Your task to perform on an android device: change notifications settings Image 0: 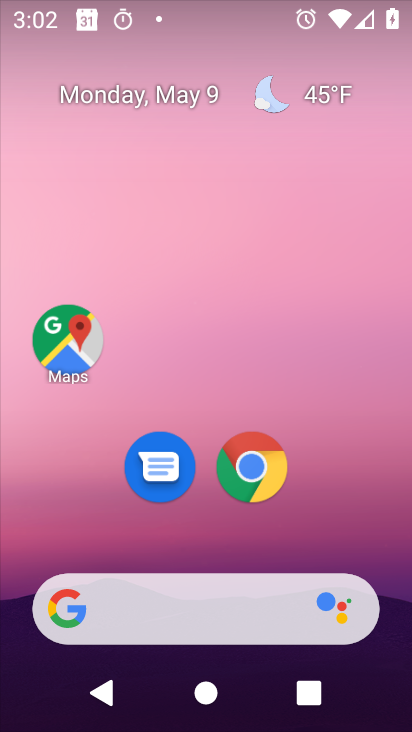
Step 0: drag from (364, 515) to (317, 103)
Your task to perform on an android device: change notifications settings Image 1: 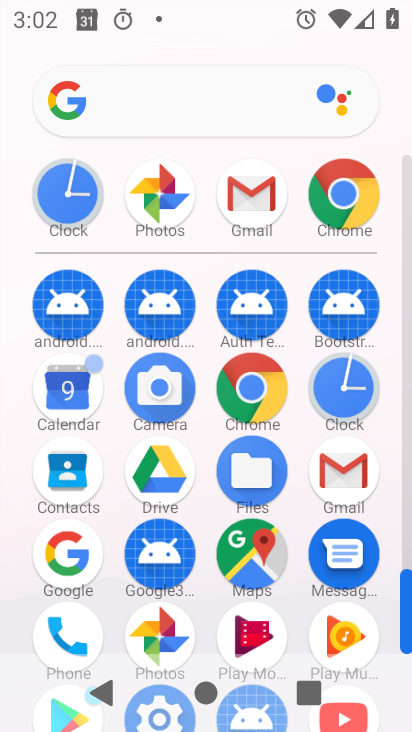
Step 1: drag from (304, 596) to (313, 228)
Your task to perform on an android device: change notifications settings Image 2: 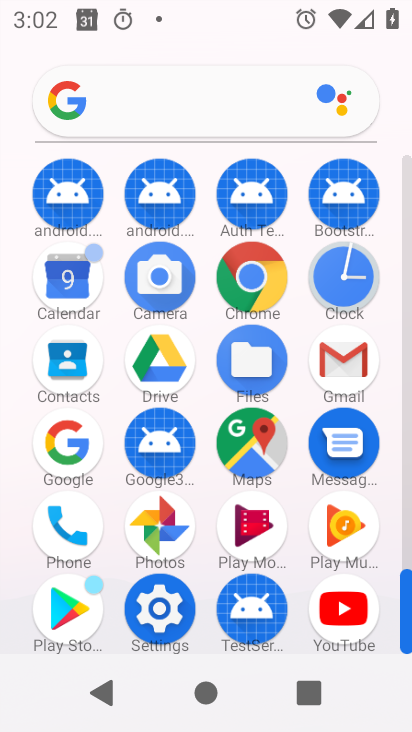
Step 2: click (143, 616)
Your task to perform on an android device: change notifications settings Image 3: 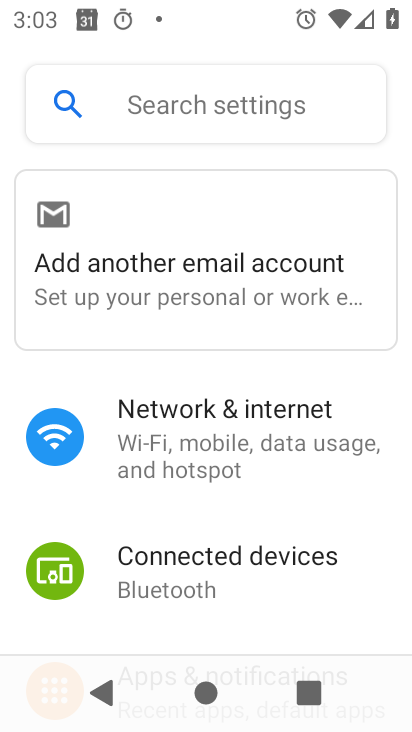
Step 3: drag from (238, 583) to (234, 177)
Your task to perform on an android device: change notifications settings Image 4: 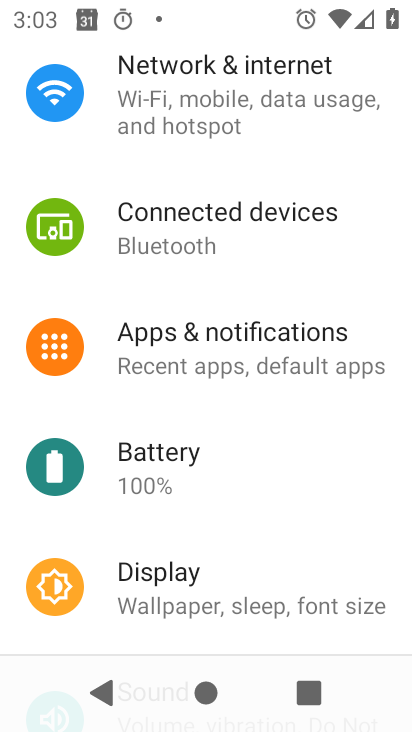
Step 4: click (183, 361)
Your task to perform on an android device: change notifications settings Image 5: 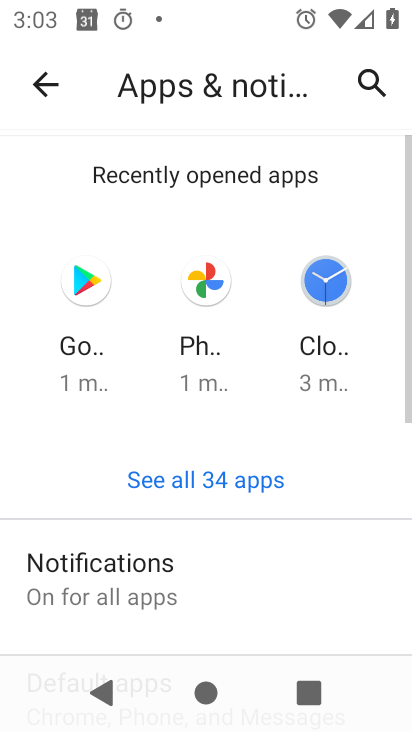
Step 5: drag from (228, 580) to (224, 183)
Your task to perform on an android device: change notifications settings Image 6: 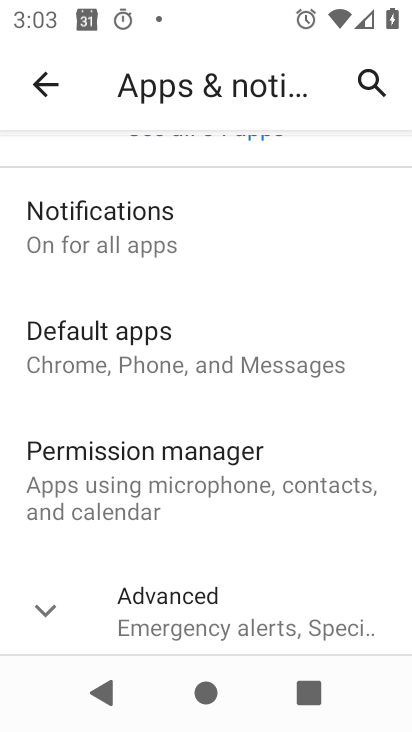
Step 6: click (125, 241)
Your task to perform on an android device: change notifications settings Image 7: 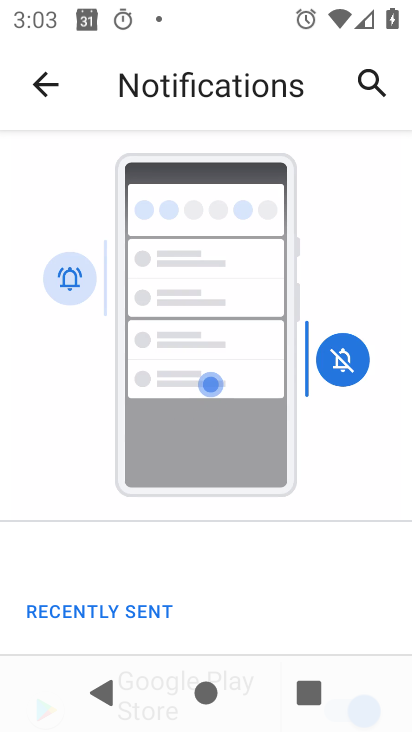
Step 7: drag from (211, 509) to (231, 183)
Your task to perform on an android device: change notifications settings Image 8: 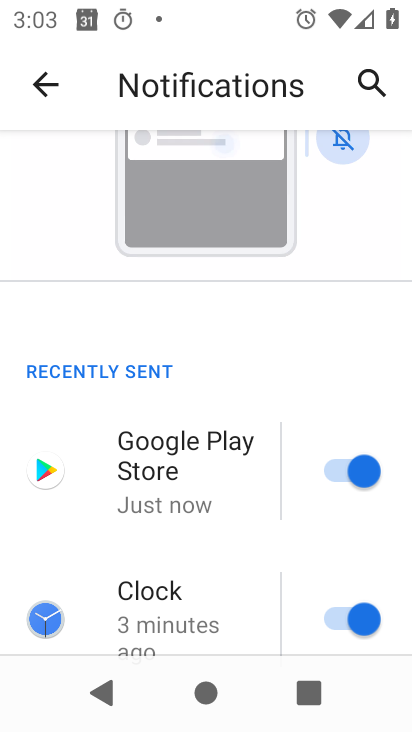
Step 8: drag from (200, 549) to (236, 187)
Your task to perform on an android device: change notifications settings Image 9: 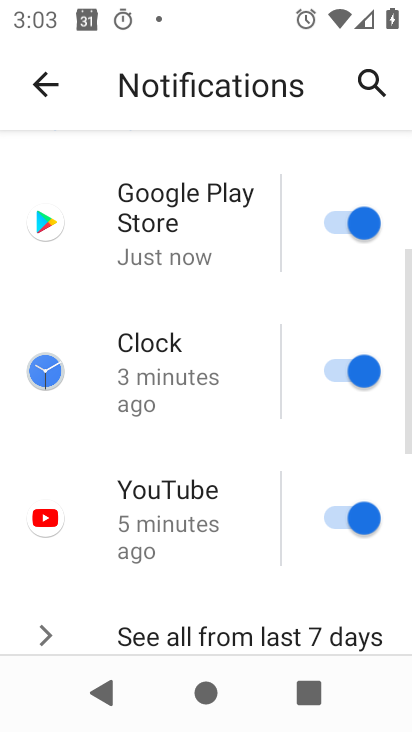
Step 9: drag from (188, 510) to (224, 167)
Your task to perform on an android device: change notifications settings Image 10: 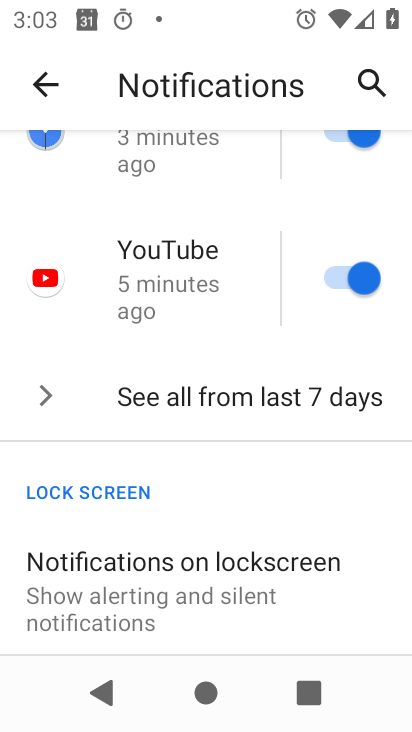
Step 10: drag from (175, 499) to (210, 188)
Your task to perform on an android device: change notifications settings Image 11: 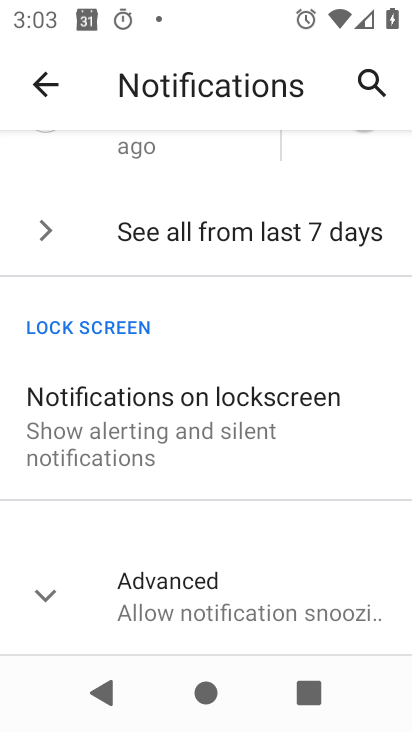
Step 11: drag from (187, 227) to (219, 645)
Your task to perform on an android device: change notifications settings Image 12: 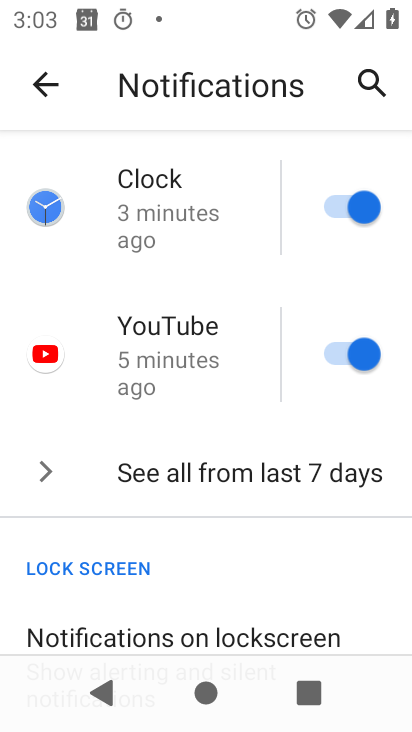
Step 12: drag from (176, 273) to (217, 729)
Your task to perform on an android device: change notifications settings Image 13: 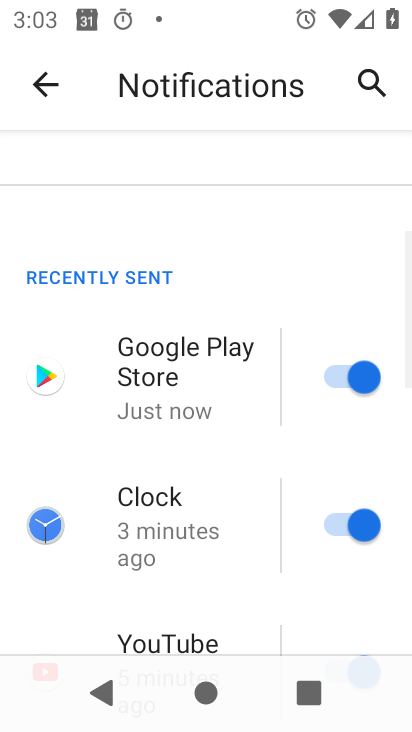
Step 13: drag from (288, 615) to (227, 167)
Your task to perform on an android device: change notifications settings Image 14: 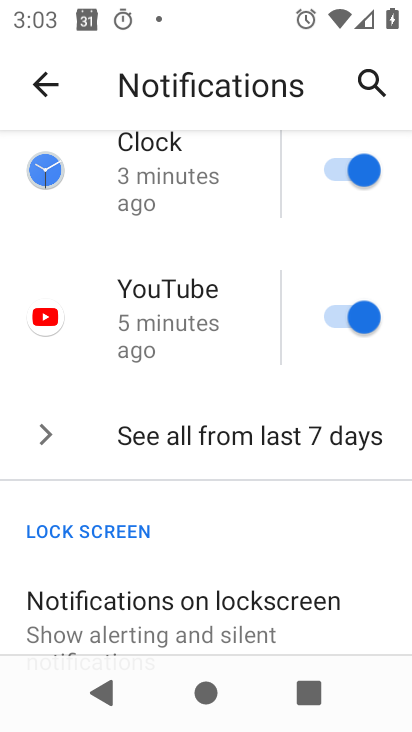
Step 14: drag from (178, 553) to (221, 145)
Your task to perform on an android device: change notifications settings Image 15: 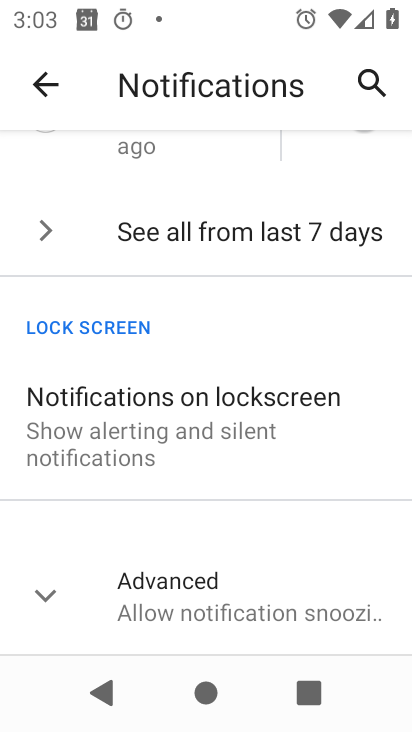
Step 15: click (171, 597)
Your task to perform on an android device: change notifications settings Image 16: 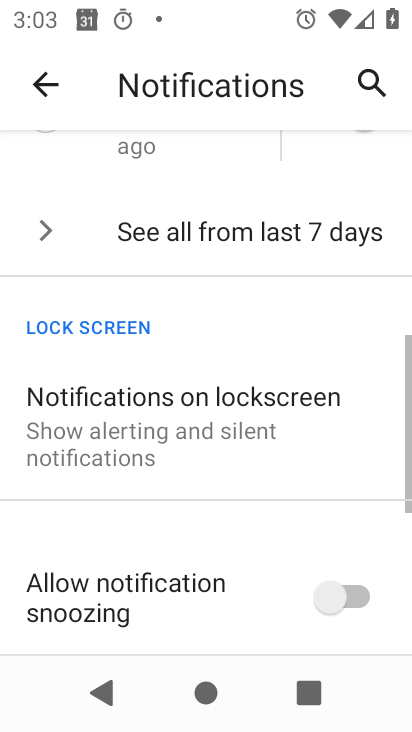
Step 16: drag from (237, 521) to (234, 175)
Your task to perform on an android device: change notifications settings Image 17: 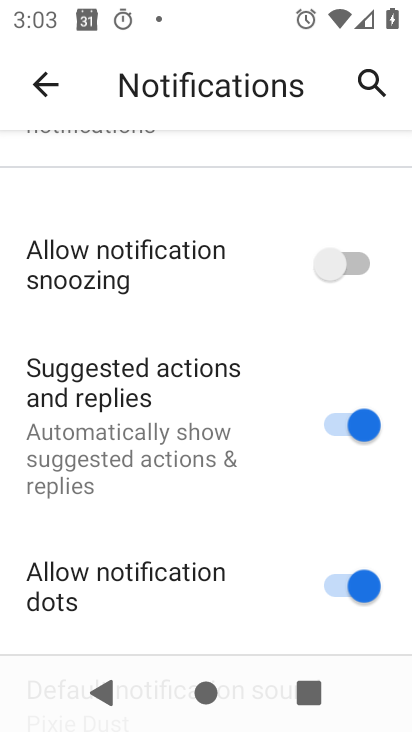
Step 17: click (338, 269)
Your task to perform on an android device: change notifications settings Image 18: 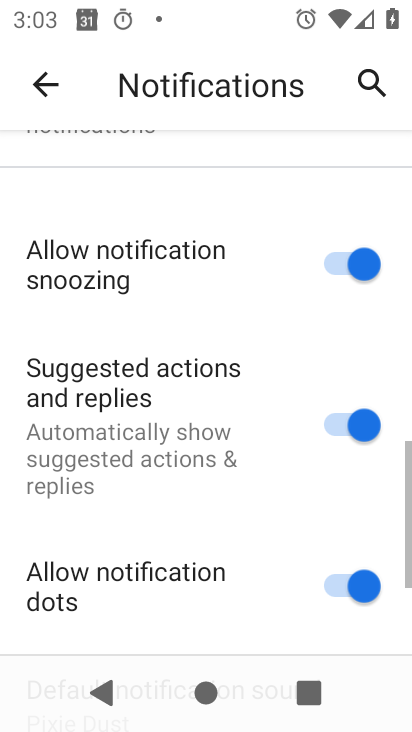
Step 18: task complete